Your task to perform on an android device: toggle pop-ups in chrome Image 0: 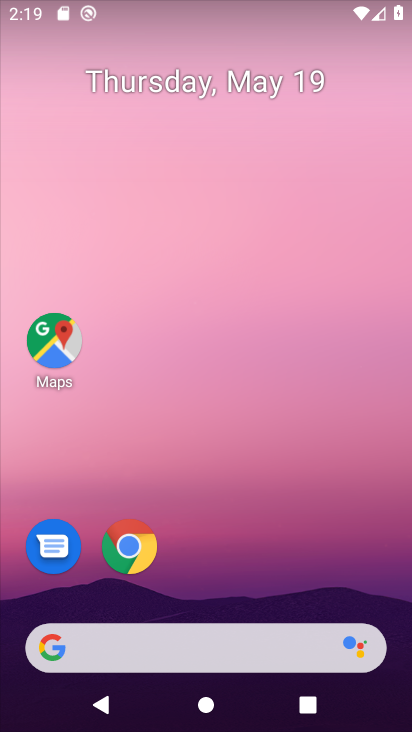
Step 0: click (124, 542)
Your task to perform on an android device: toggle pop-ups in chrome Image 1: 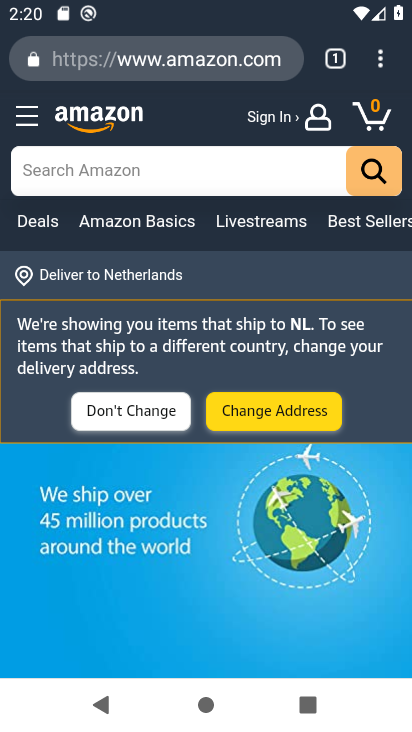
Step 1: click (389, 55)
Your task to perform on an android device: toggle pop-ups in chrome Image 2: 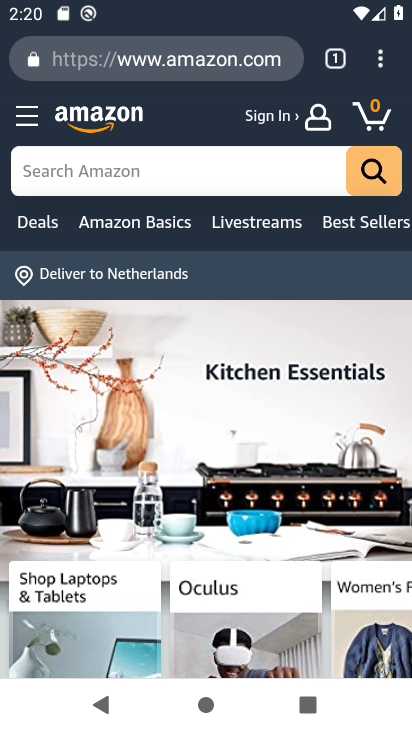
Step 2: click (378, 56)
Your task to perform on an android device: toggle pop-ups in chrome Image 3: 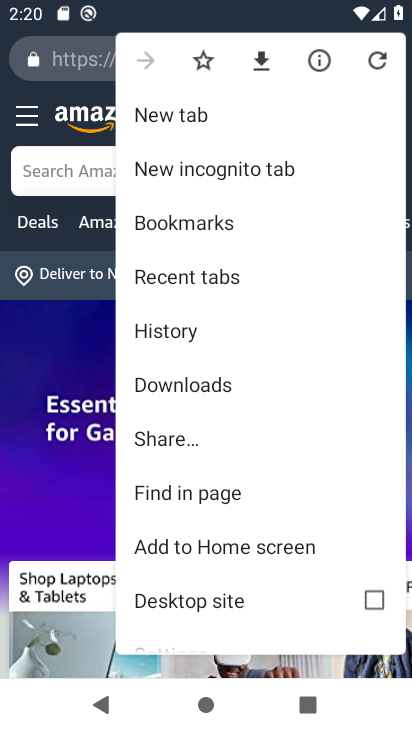
Step 3: drag from (234, 581) to (229, 497)
Your task to perform on an android device: toggle pop-ups in chrome Image 4: 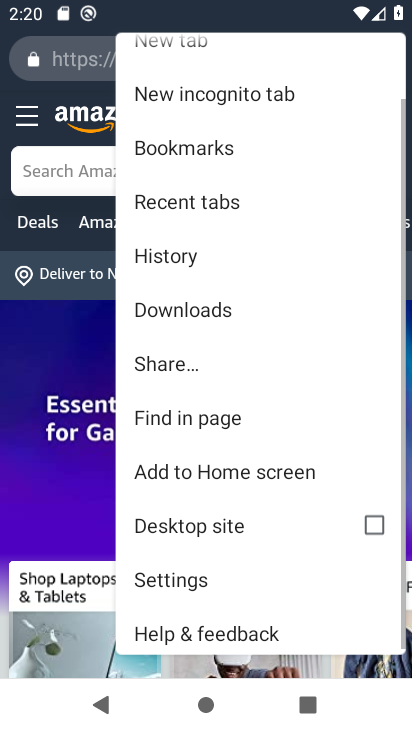
Step 4: click (260, 121)
Your task to perform on an android device: toggle pop-ups in chrome Image 5: 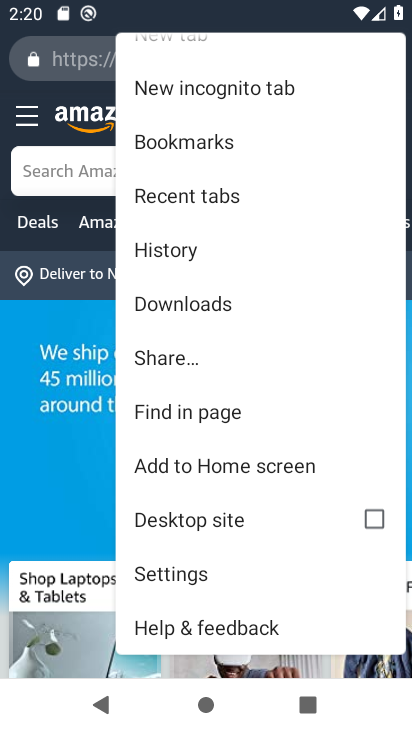
Step 5: click (218, 565)
Your task to perform on an android device: toggle pop-ups in chrome Image 6: 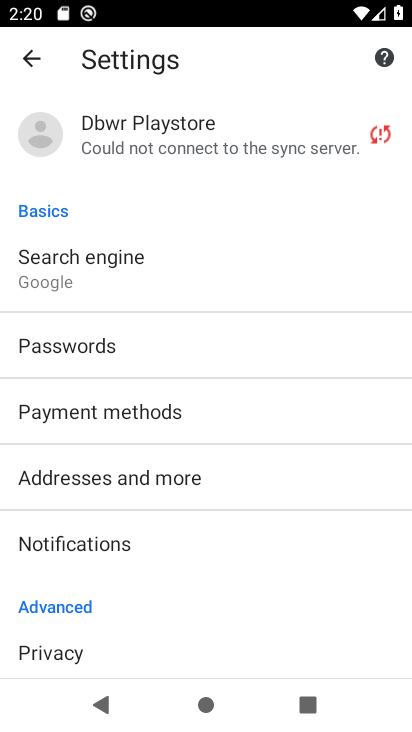
Step 6: drag from (145, 650) to (157, 366)
Your task to perform on an android device: toggle pop-ups in chrome Image 7: 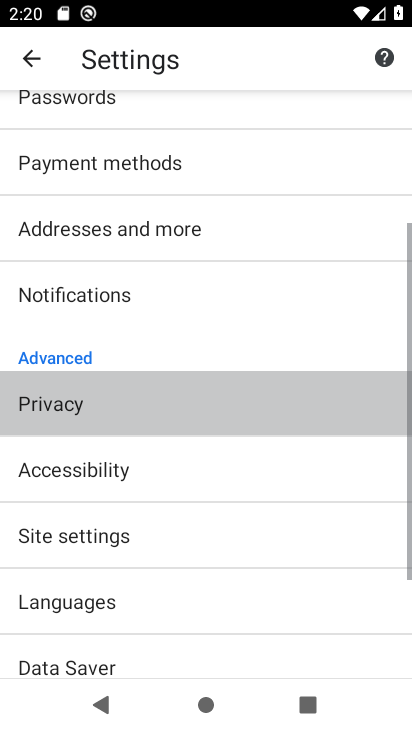
Step 7: click (177, 123)
Your task to perform on an android device: toggle pop-ups in chrome Image 8: 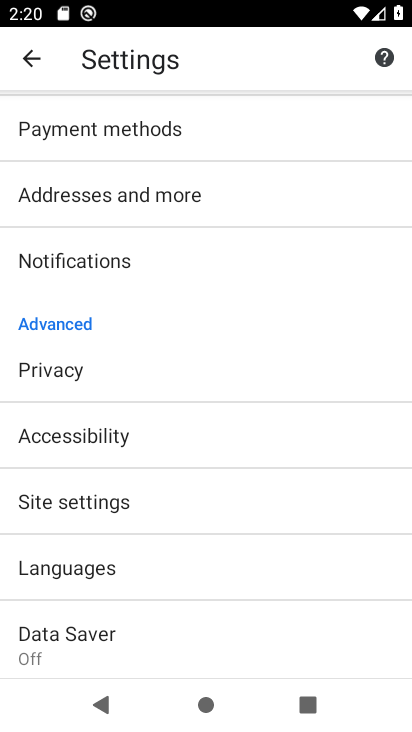
Step 8: click (148, 502)
Your task to perform on an android device: toggle pop-ups in chrome Image 9: 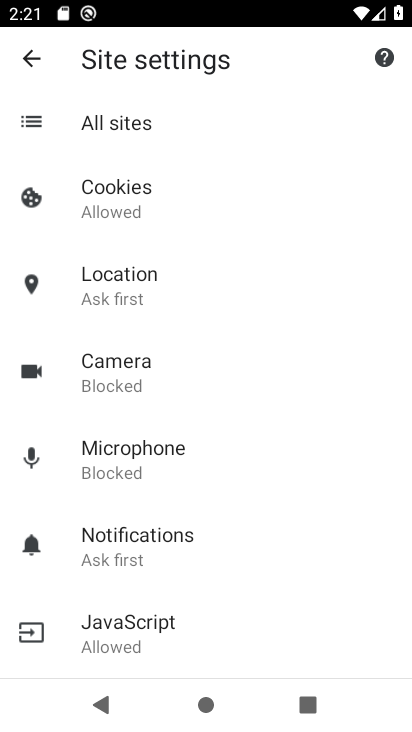
Step 9: drag from (184, 601) to (224, 201)
Your task to perform on an android device: toggle pop-ups in chrome Image 10: 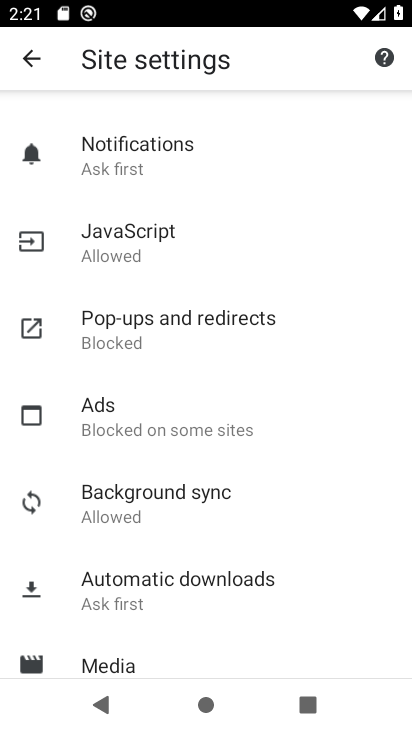
Step 10: click (182, 338)
Your task to perform on an android device: toggle pop-ups in chrome Image 11: 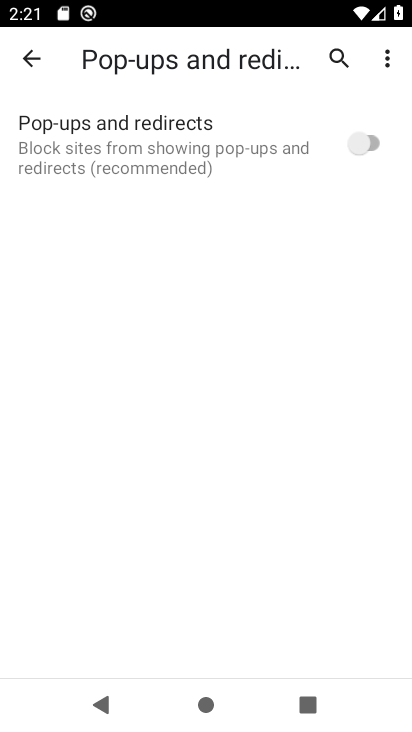
Step 11: click (365, 136)
Your task to perform on an android device: toggle pop-ups in chrome Image 12: 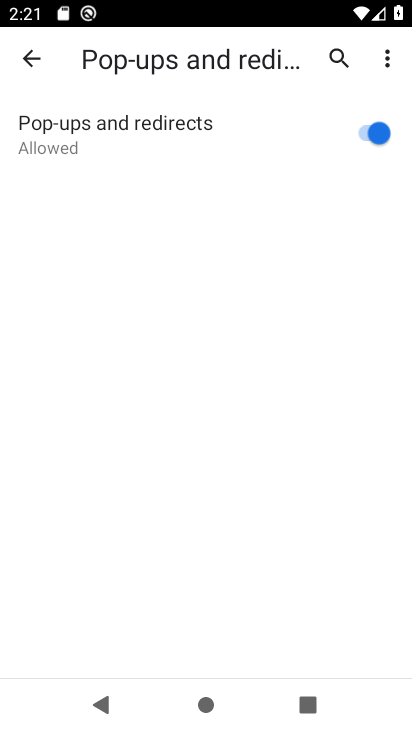
Step 12: task complete